Your task to perform on an android device: turn off location Image 0: 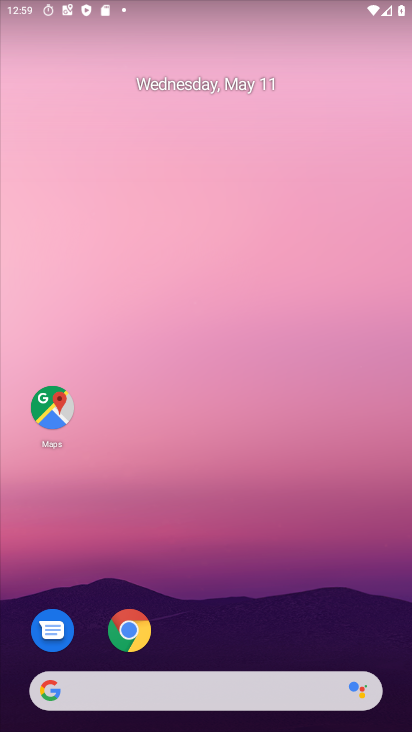
Step 0: drag from (290, 613) to (247, 82)
Your task to perform on an android device: turn off location Image 1: 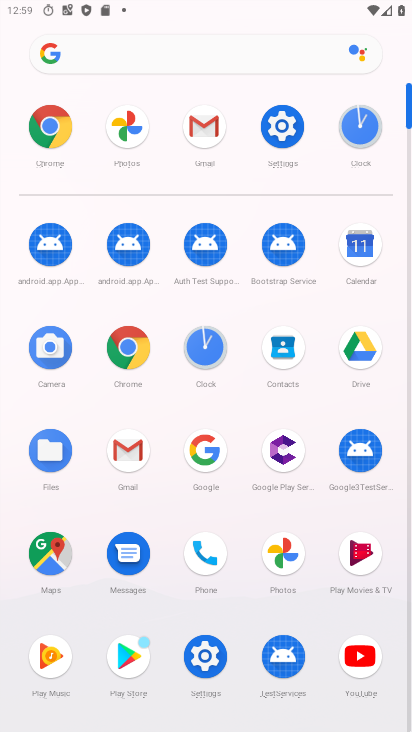
Step 1: click (283, 143)
Your task to perform on an android device: turn off location Image 2: 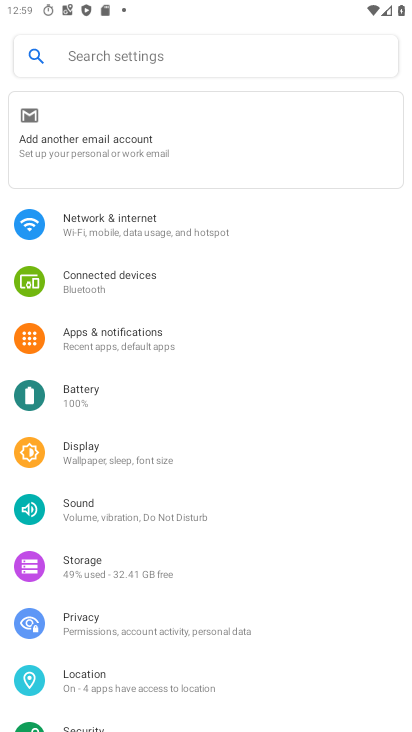
Step 2: click (123, 687)
Your task to perform on an android device: turn off location Image 3: 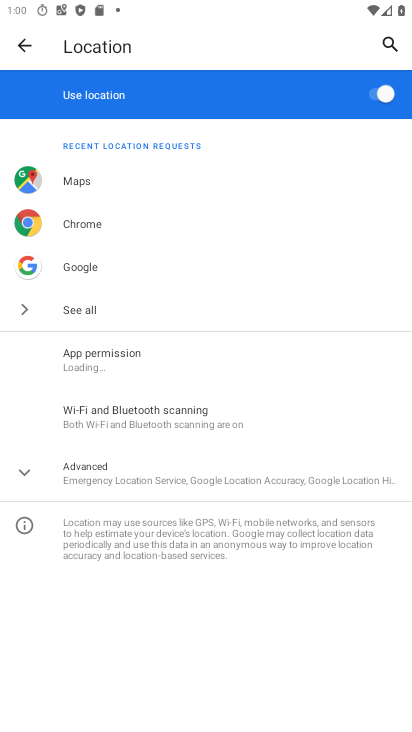
Step 3: click (355, 100)
Your task to perform on an android device: turn off location Image 4: 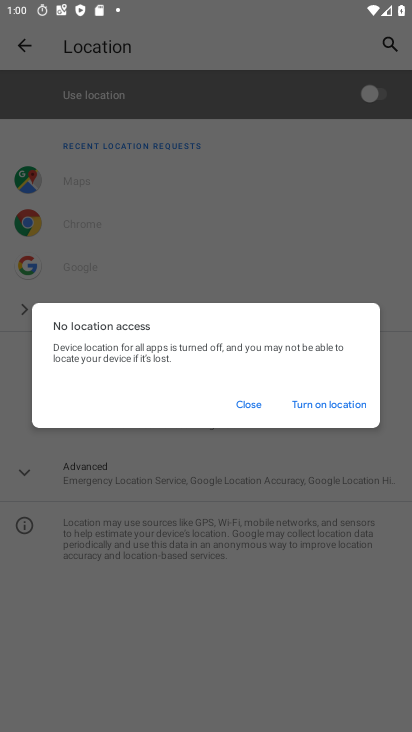
Step 4: task complete